Your task to perform on an android device: Search for flights from Buenos aires to Helsinki Image 0: 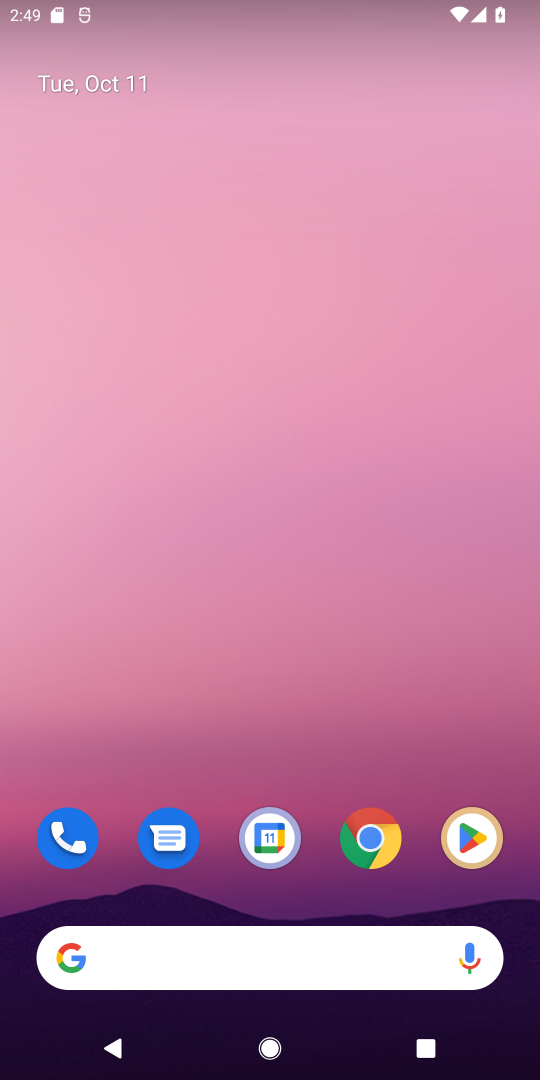
Step 0: click (376, 851)
Your task to perform on an android device: Search for flights from Buenos aires to Helsinki Image 1: 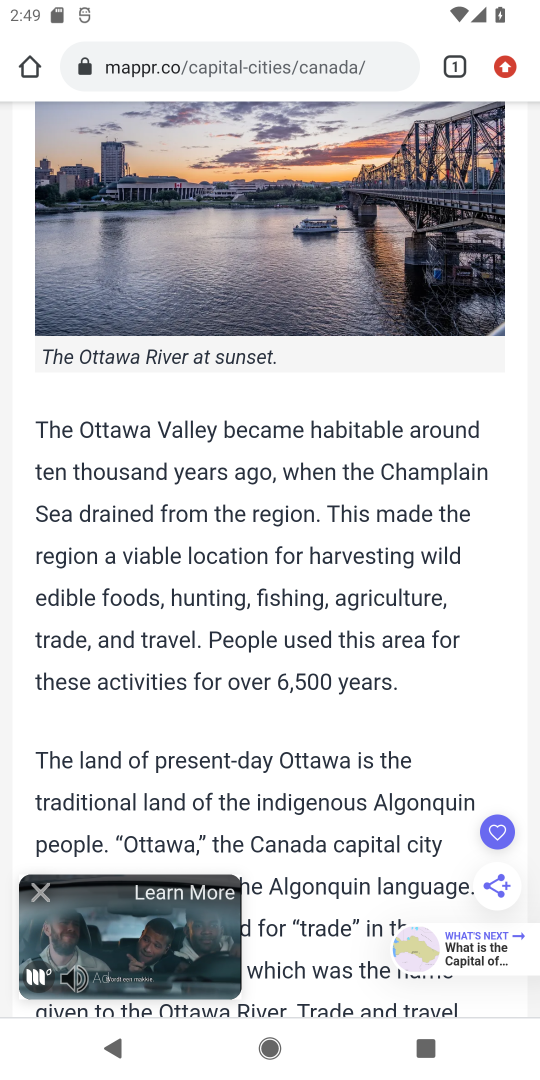
Step 1: click (262, 58)
Your task to perform on an android device: Search for flights from Buenos aires to Helsinki Image 2: 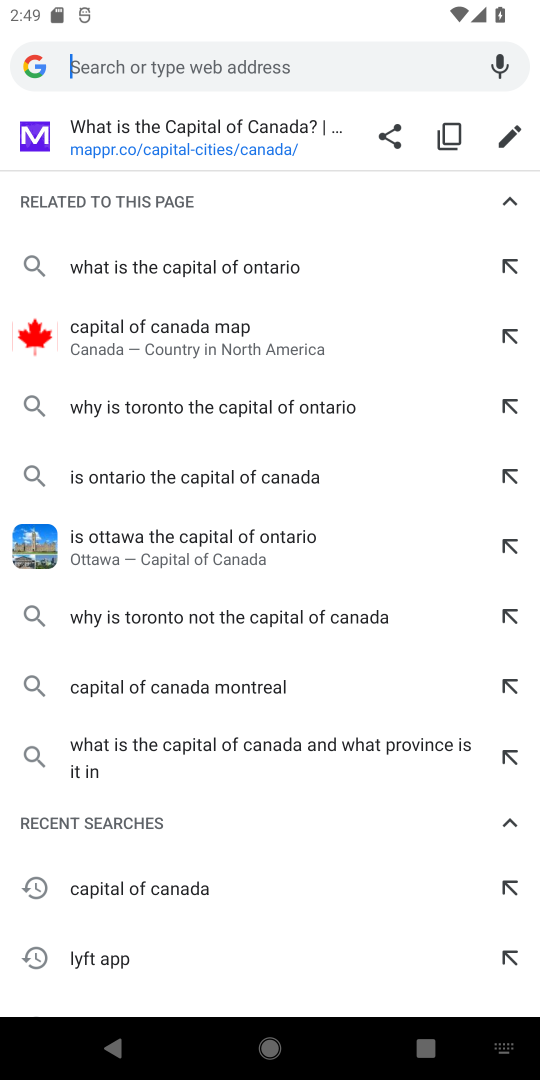
Step 2: type "search flight"
Your task to perform on an android device: Search for flights from Buenos aires to Helsinki Image 3: 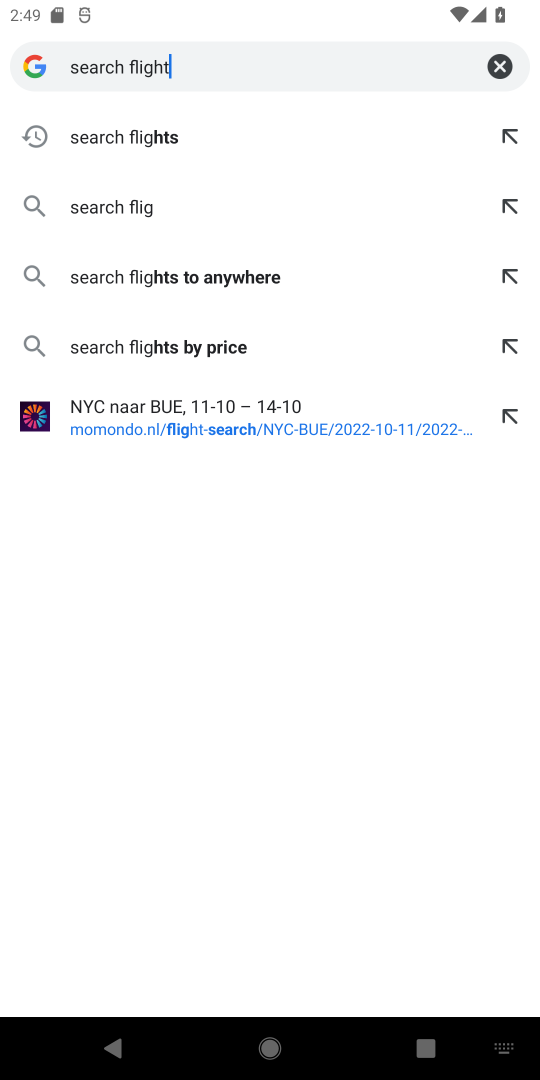
Step 3: type ""
Your task to perform on an android device: Search for flights from Buenos aires to Helsinki Image 4: 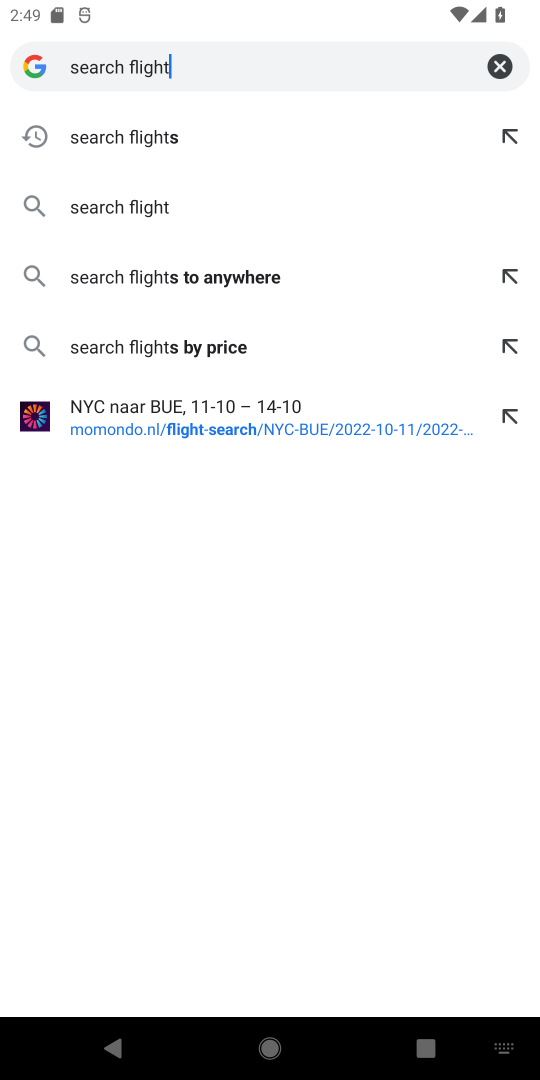
Step 4: click (102, 126)
Your task to perform on an android device: Search for flights from Buenos aires to Helsinki Image 5: 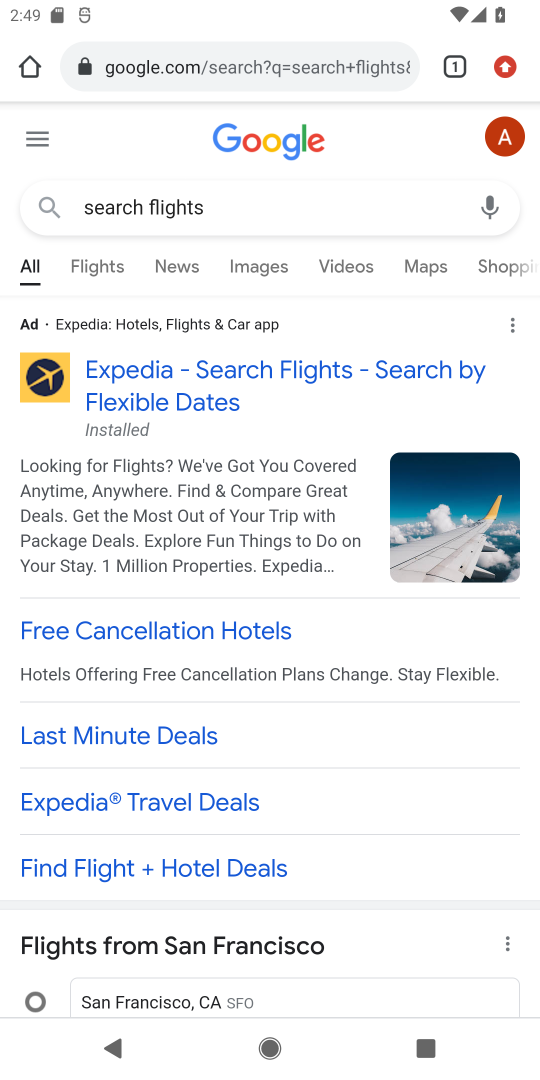
Step 5: drag from (370, 757) to (375, 113)
Your task to perform on an android device: Search for flights from Buenos aires to Helsinki Image 6: 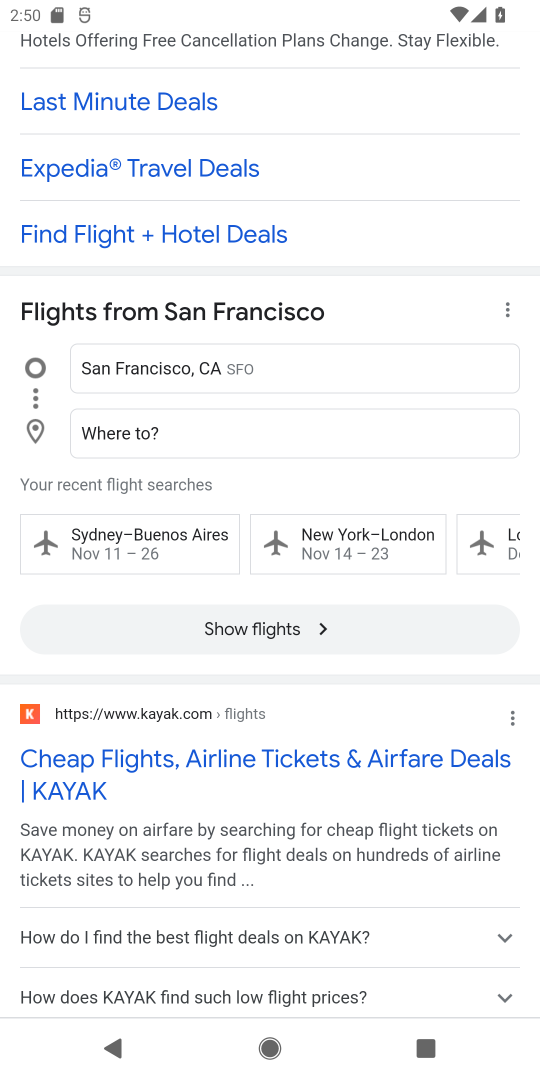
Step 6: click (132, 757)
Your task to perform on an android device: Search for flights from Buenos aires to Helsinki Image 7: 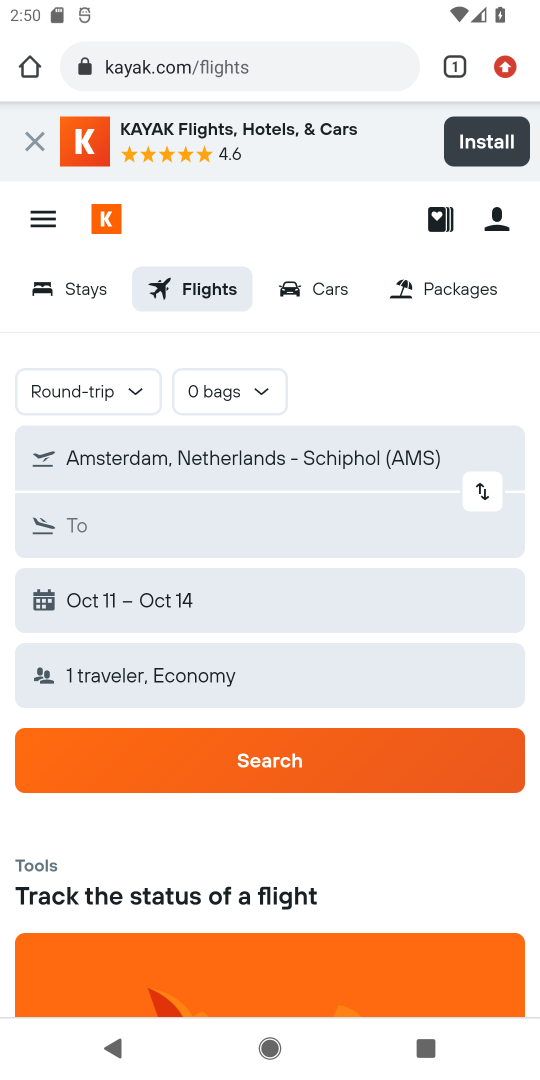
Step 7: click (144, 335)
Your task to perform on an android device: Search for flights from Buenos aires to Helsinki Image 8: 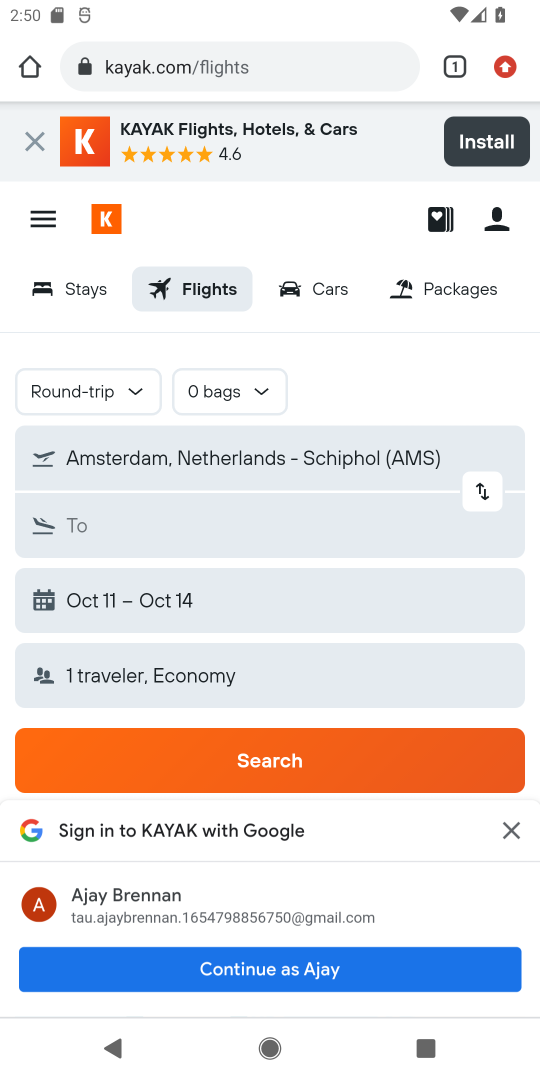
Step 8: click (508, 826)
Your task to perform on an android device: Search for flights from Buenos aires to Helsinki Image 9: 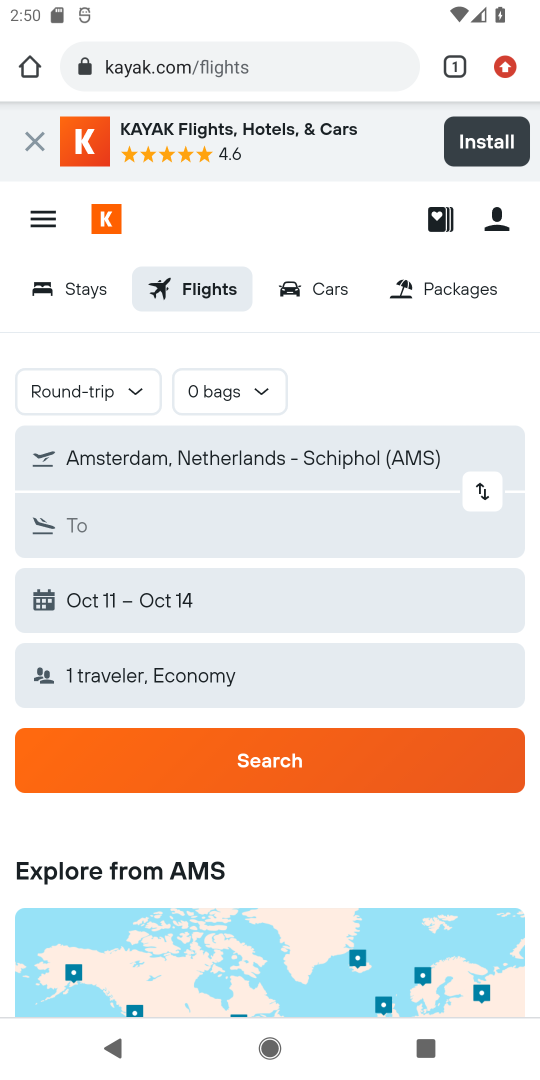
Step 9: click (179, 450)
Your task to perform on an android device: Search for flights from Buenos aires to Helsinki Image 10: 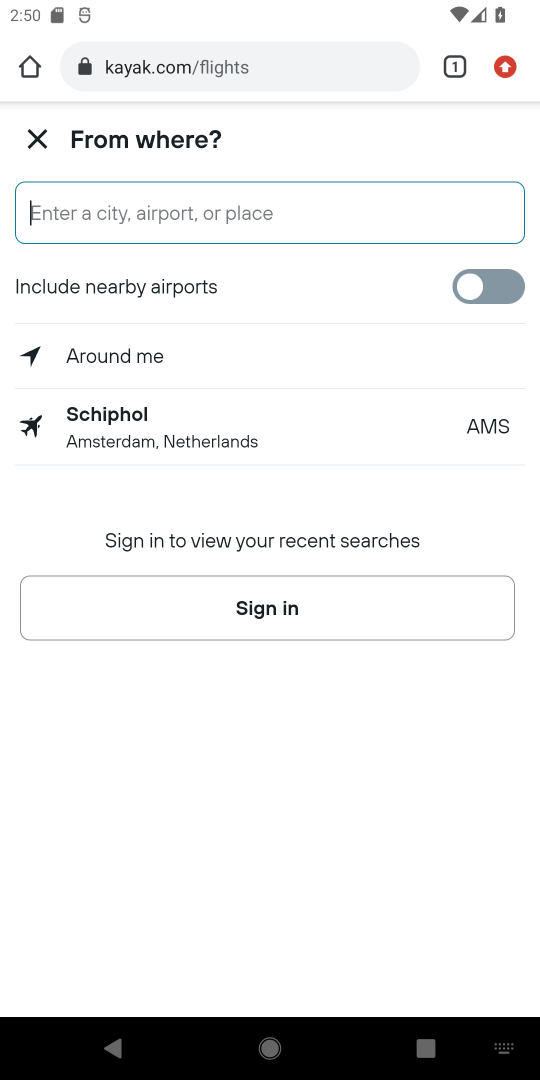
Step 10: type "buenos"
Your task to perform on an android device: Search for flights from Buenos aires to Helsinki Image 11: 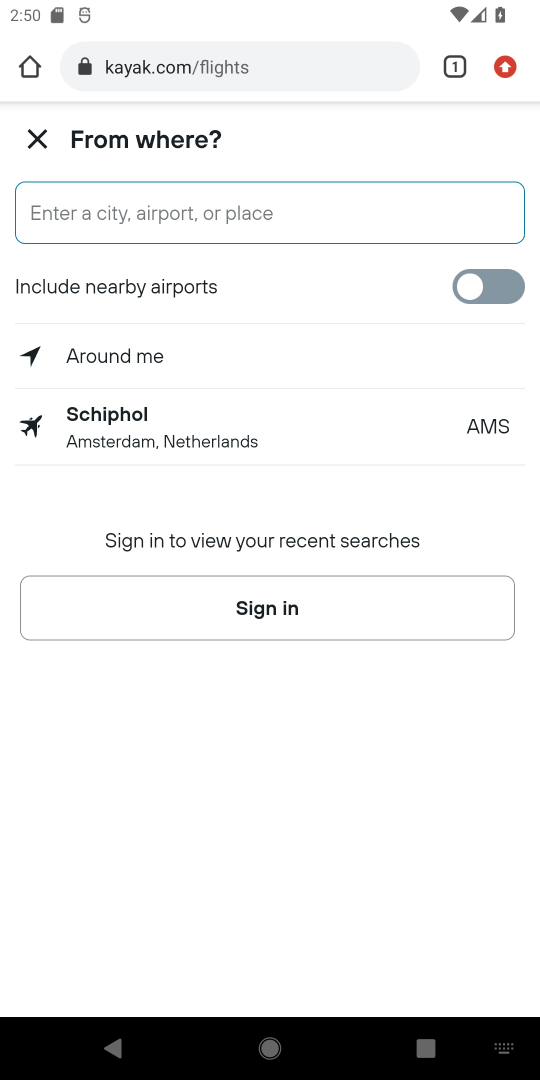
Step 11: type ""
Your task to perform on an android device: Search for flights from Buenos aires to Helsinki Image 12: 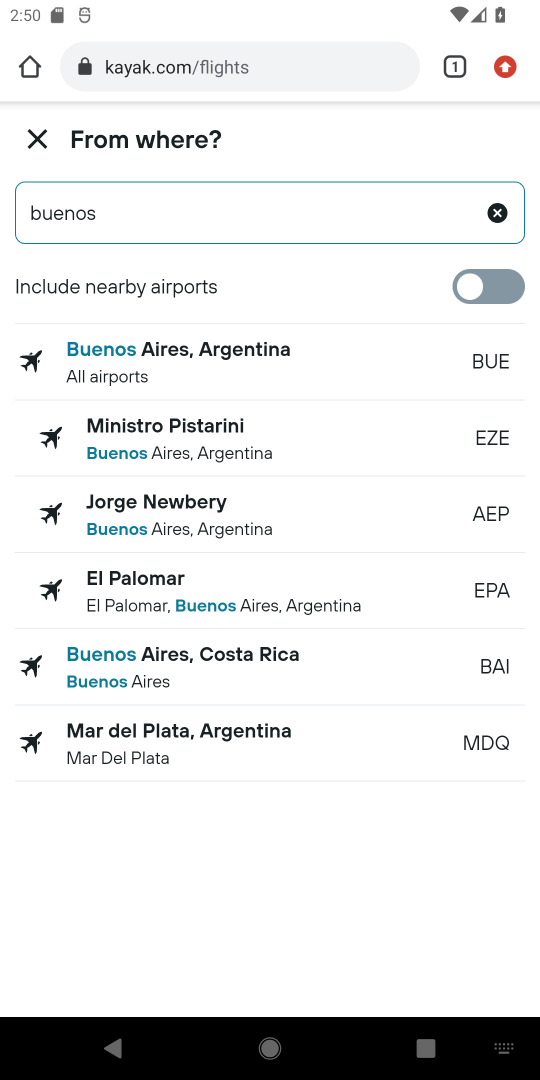
Step 12: click (167, 353)
Your task to perform on an android device: Search for flights from Buenos aires to Helsinki Image 13: 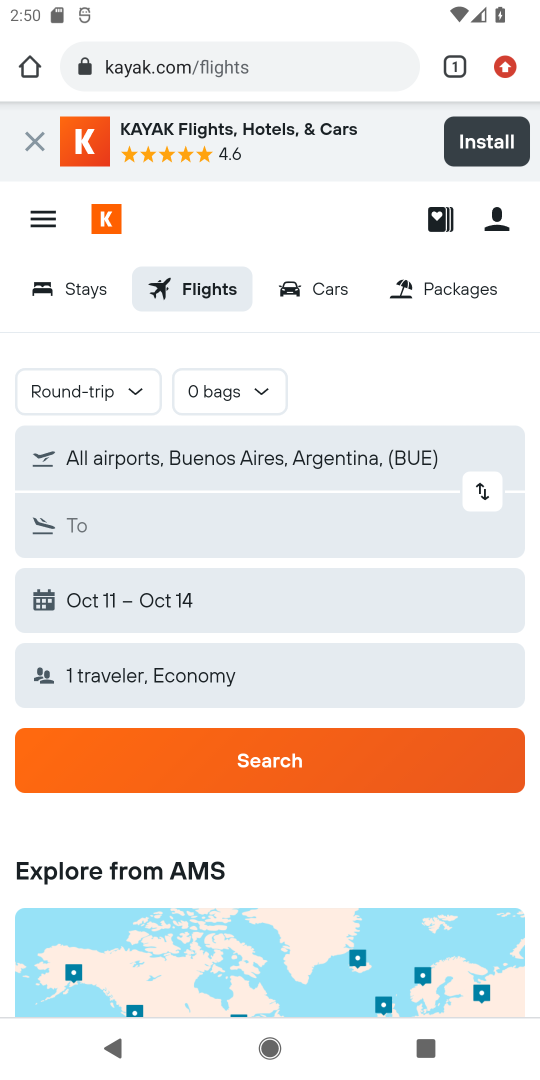
Step 13: click (82, 530)
Your task to perform on an android device: Search for flights from Buenos aires to Helsinki Image 14: 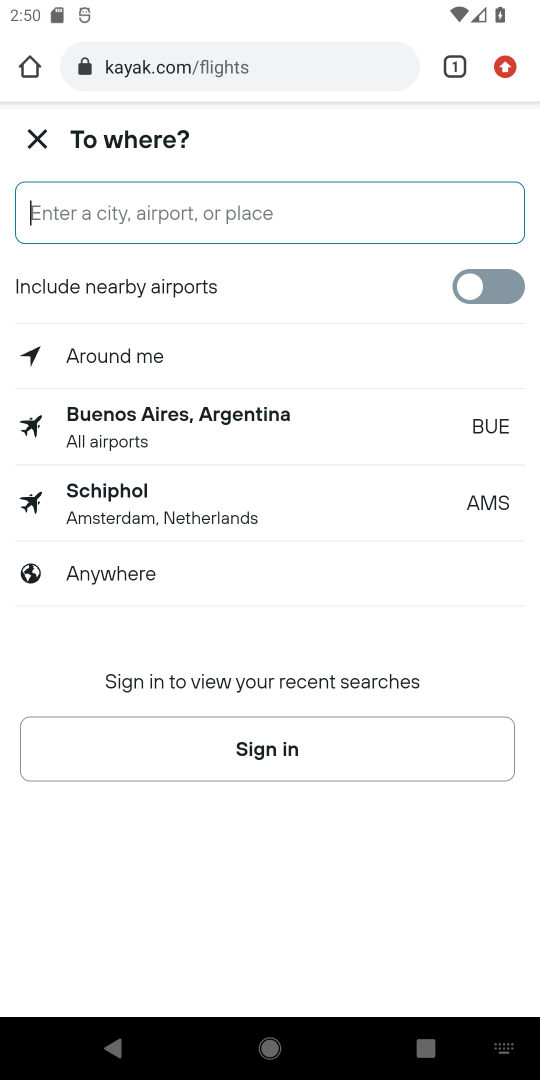
Step 14: type "helsinki"
Your task to perform on an android device: Search for flights from Buenos aires to Helsinki Image 15: 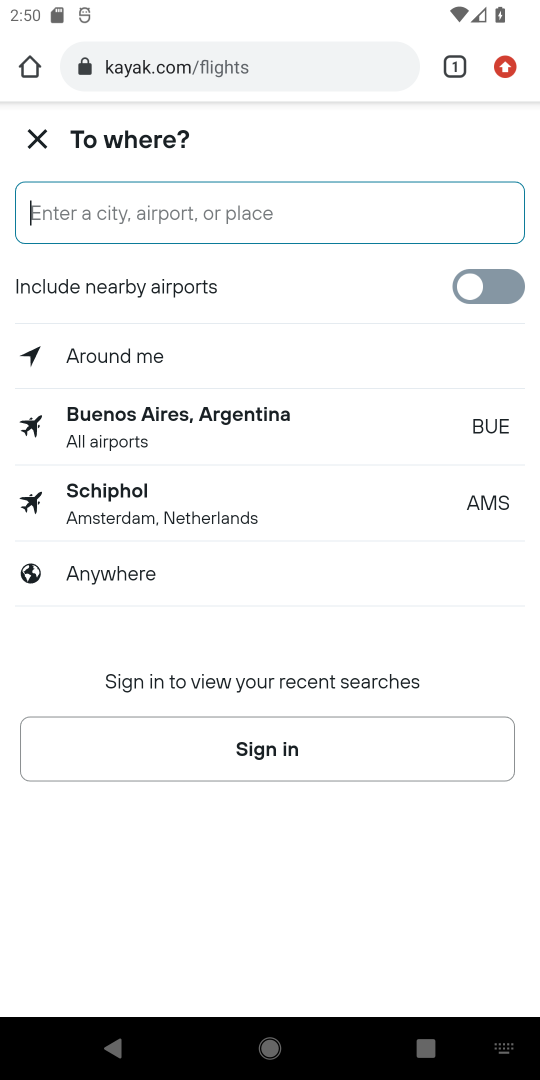
Step 15: type ""
Your task to perform on an android device: Search for flights from Buenos aires to Helsinki Image 16: 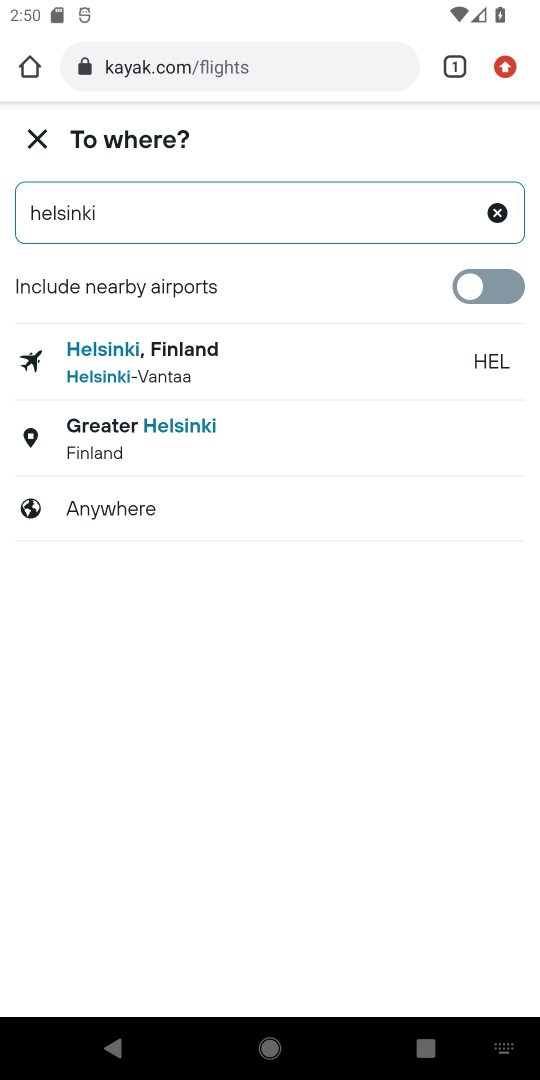
Step 16: click (221, 382)
Your task to perform on an android device: Search for flights from Buenos aires to Helsinki Image 17: 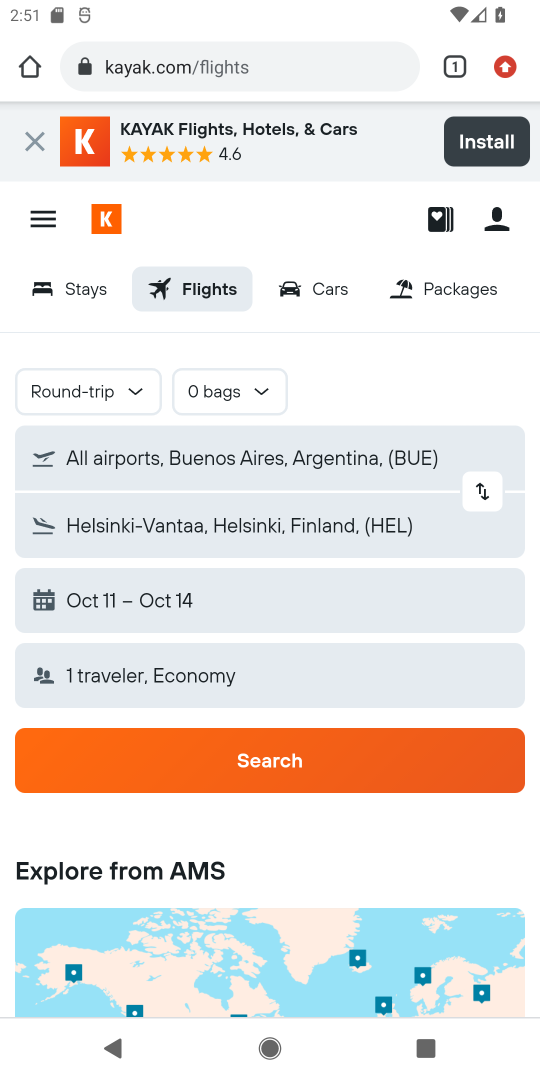
Step 17: click (198, 595)
Your task to perform on an android device: Search for flights from Buenos aires to Helsinki Image 18: 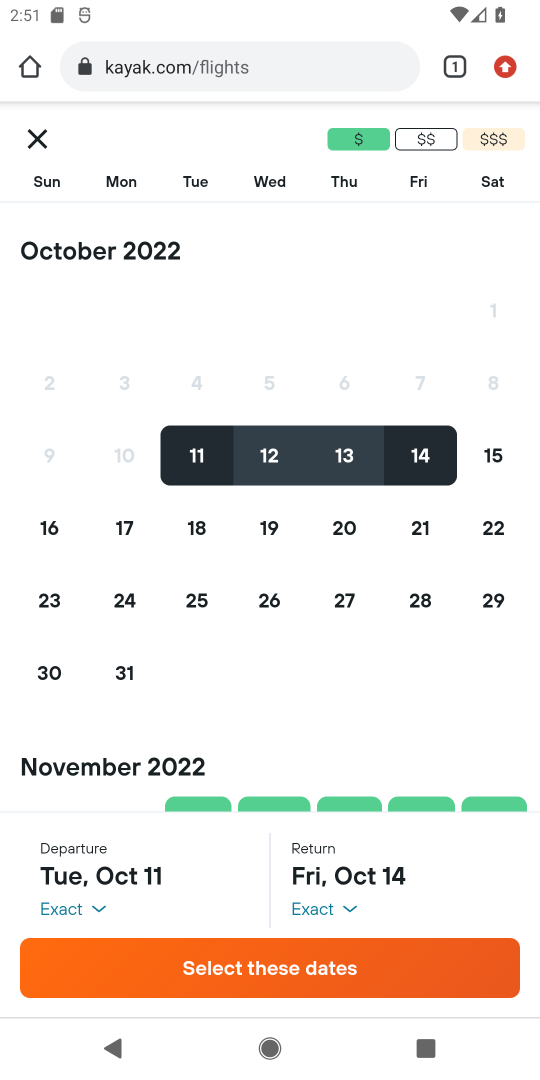
Step 18: click (267, 468)
Your task to perform on an android device: Search for flights from Buenos aires to Helsinki Image 19: 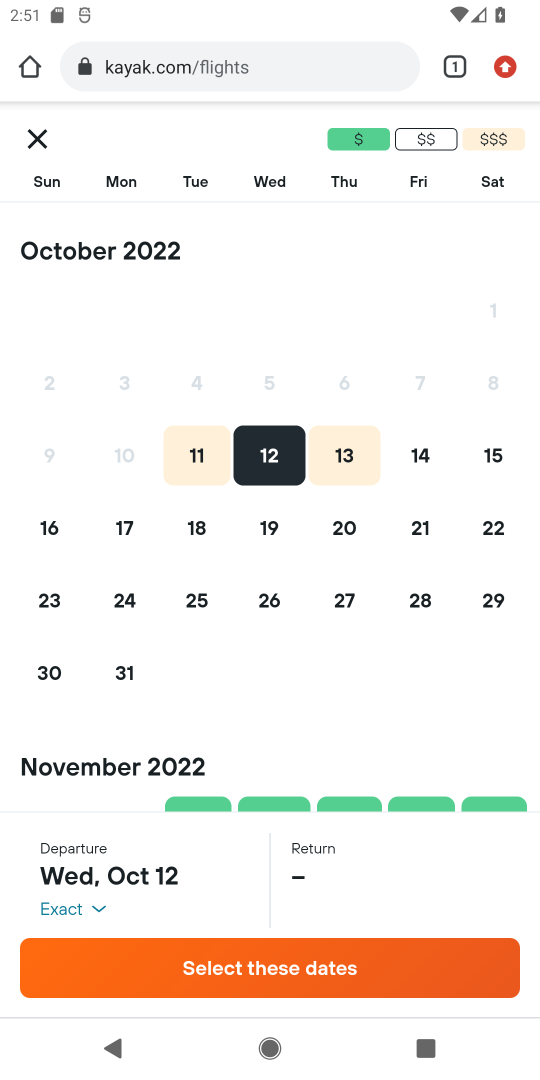
Step 19: click (245, 465)
Your task to perform on an android device: Search for flights from Buenos aires to Helsinki Image 20: 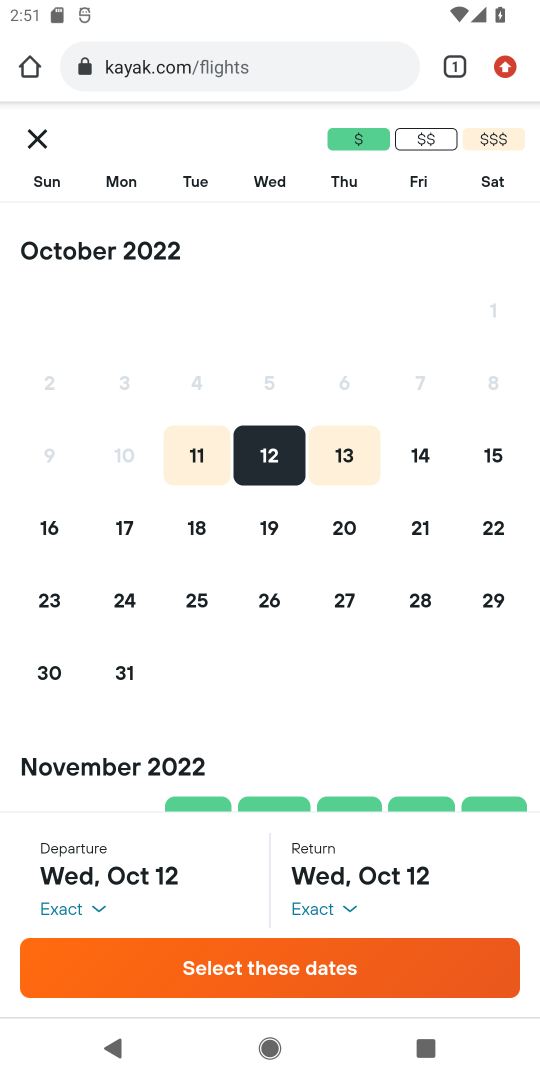
Step 20: click (357, 881)
Your task to perform on an android device: Search for flights from Buenos aires to Helsinki Image 21: 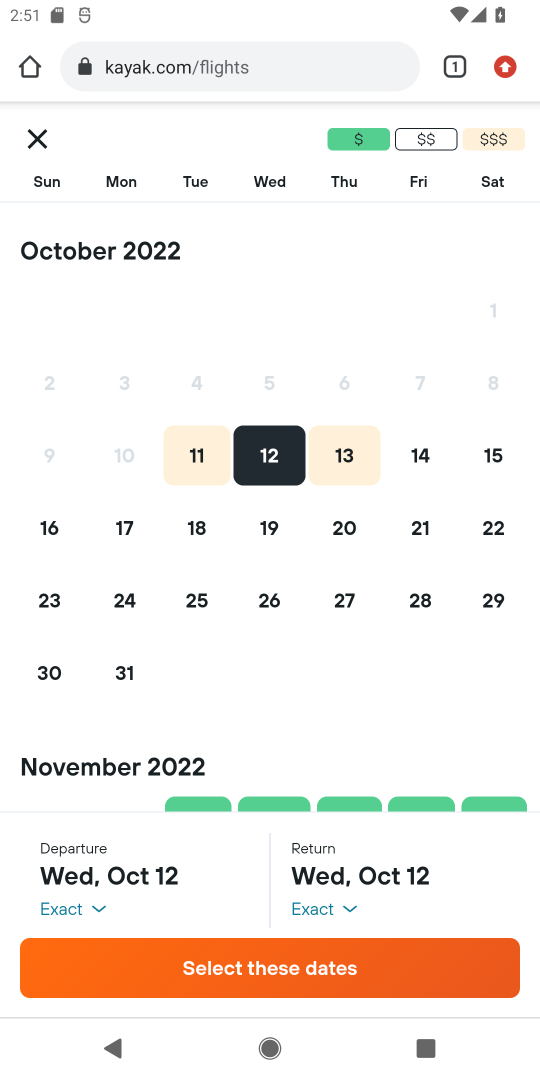
Step 21: click (426, 451)
Your task to perform on an android device: Search for flights from Buenos aires to Helsinki Image 22: 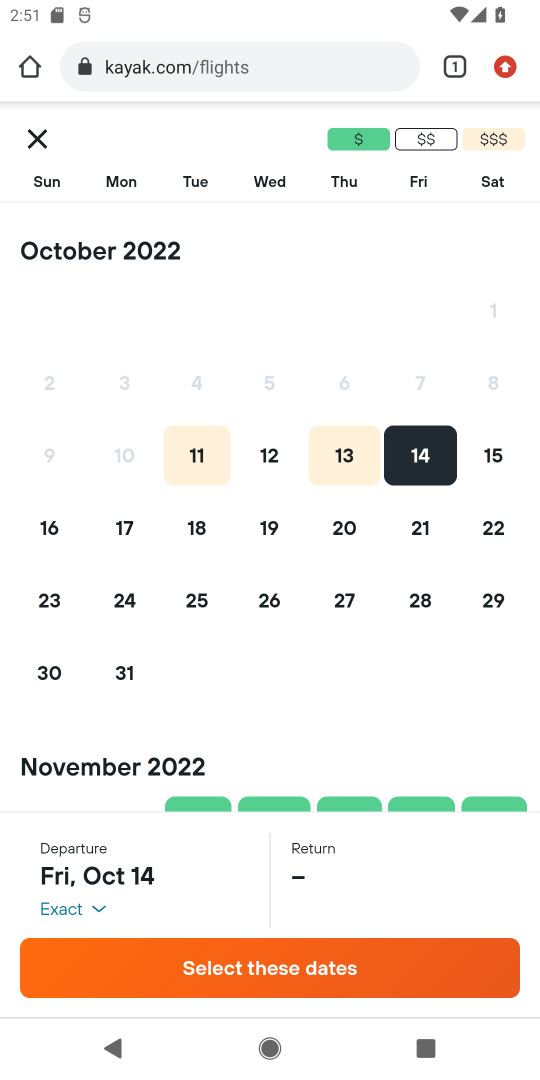
Step 22: click (275, 982)
Your task to perform on an android device: Search for flights from Buenos aires to Helsinki Image 23: 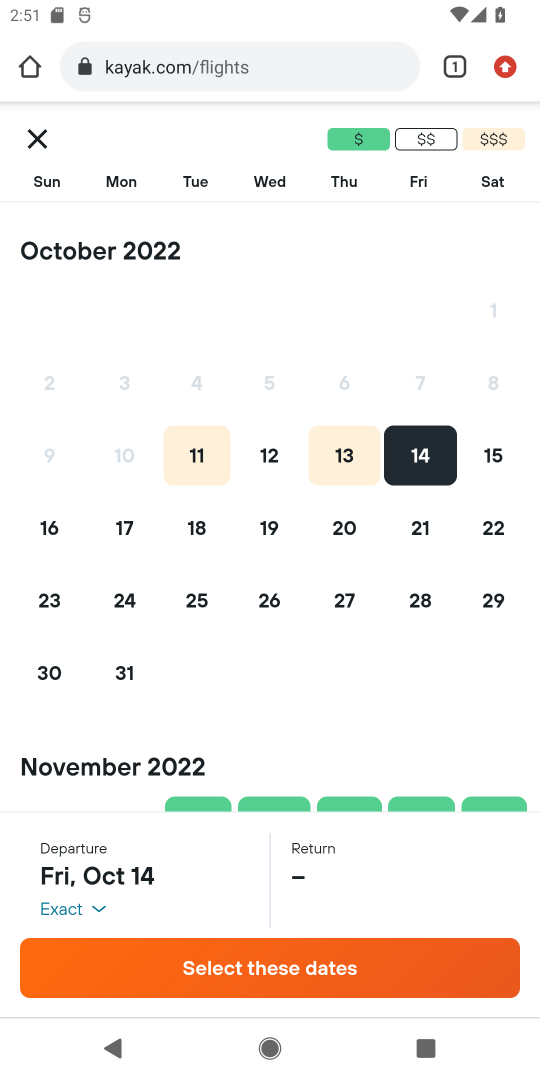
Step 23: drag from (307, 598) to (366, 303)
Your task to perform on an android device: Search for flights from Buenos aires to Helsinki Image 24: 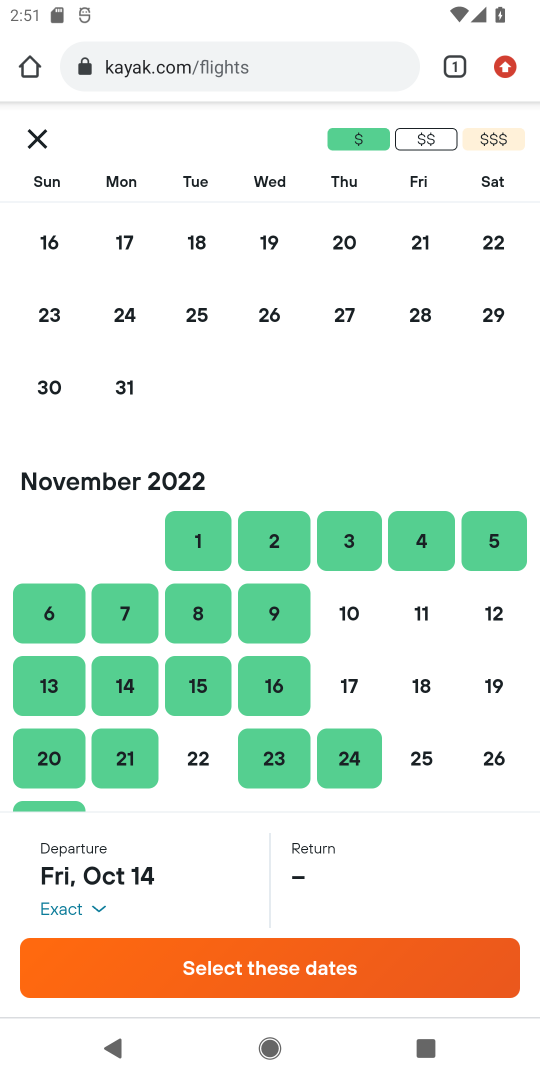
Step 24: drag from (59, 526) to (251, 521)
Your task to perform on an android device: Search for flights from Buenos aires to Helsinki Image 25: 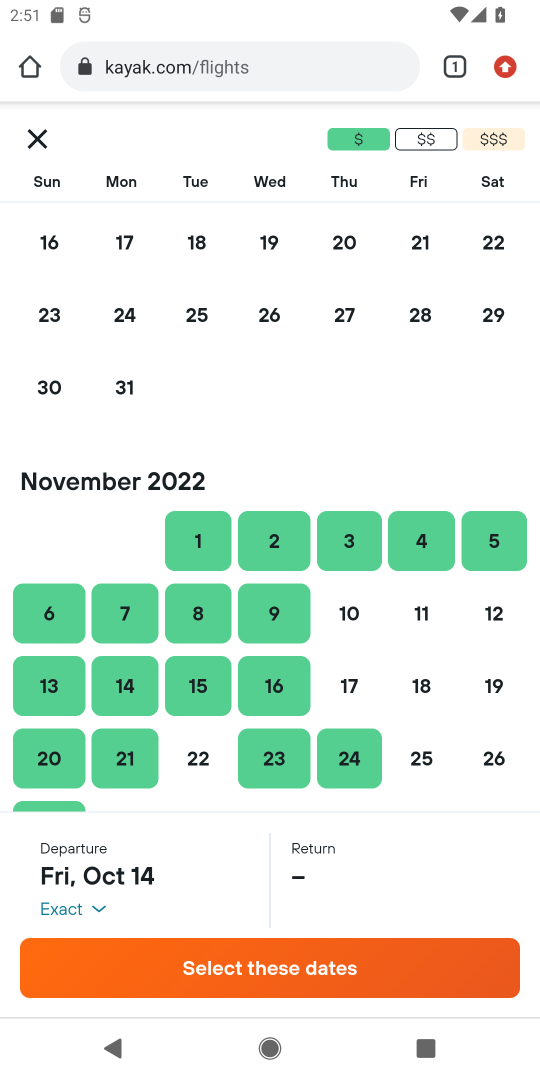
Step 25: click (198, 537)
Your task to perform on an android device: Search for flights from Buenos aires to Helsinki Image 26: 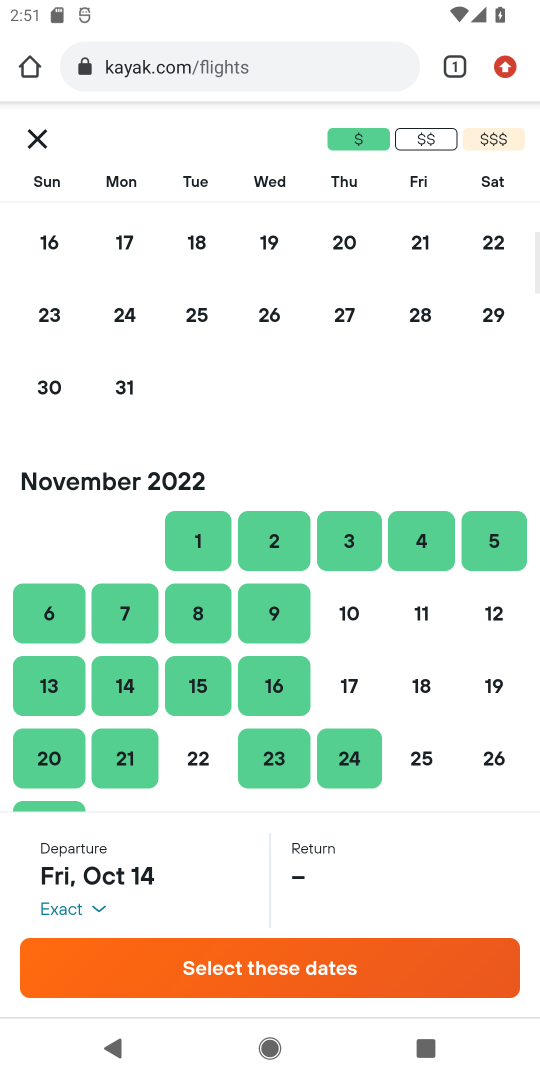
Step 26: click (343, 627)
Your task to perform on an android device: Search for flights from Buenos aires to Helsinki Image 27: 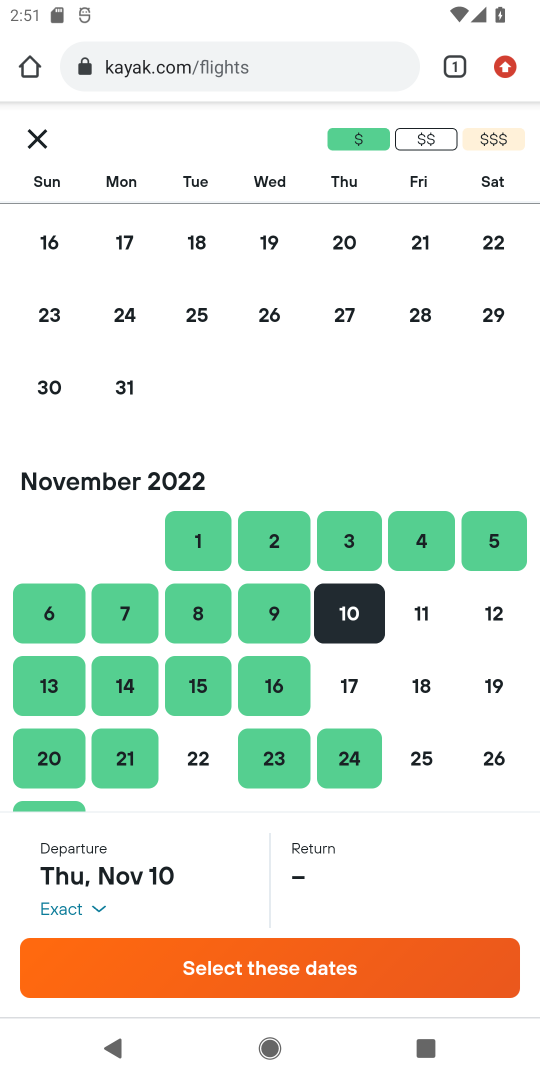
Step 27: click (348, 610)
Your task to perform on an android device: Search for flights from Buenos aires to Helsinki Image 28: 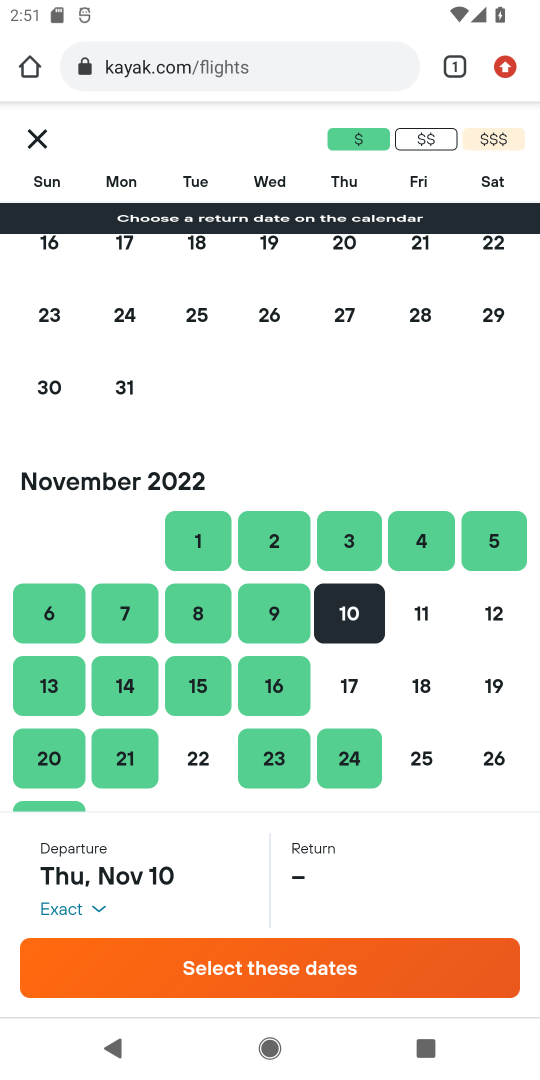
Step 28: click (334, 980)
Your task to perform on an android device: Search for flights from Buenos aires to Helsinki Image 29: 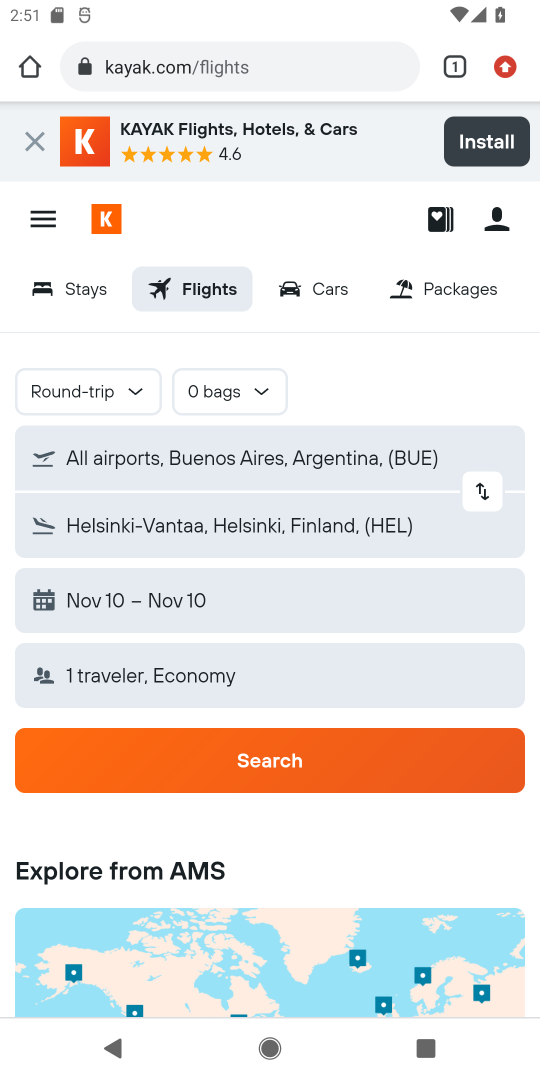
Step 29: click (246, 779)
Your task to perform on an android device: Search for flights from Buenos aires to Helsinki Image 30: 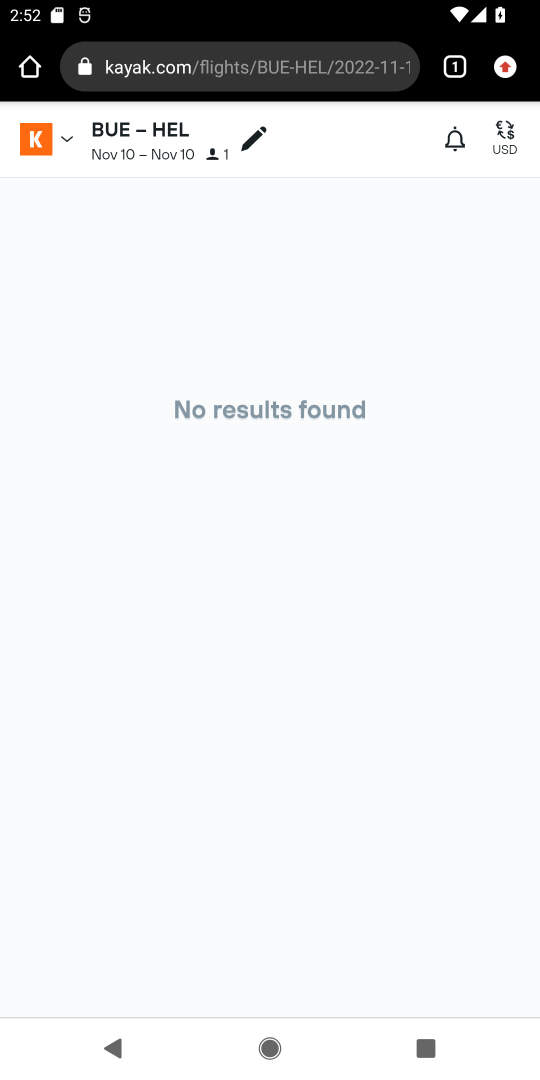
Step 30: press back button
Your task to perform on an android device: Search for flights from Buenos aires to Helsinki Image 31: 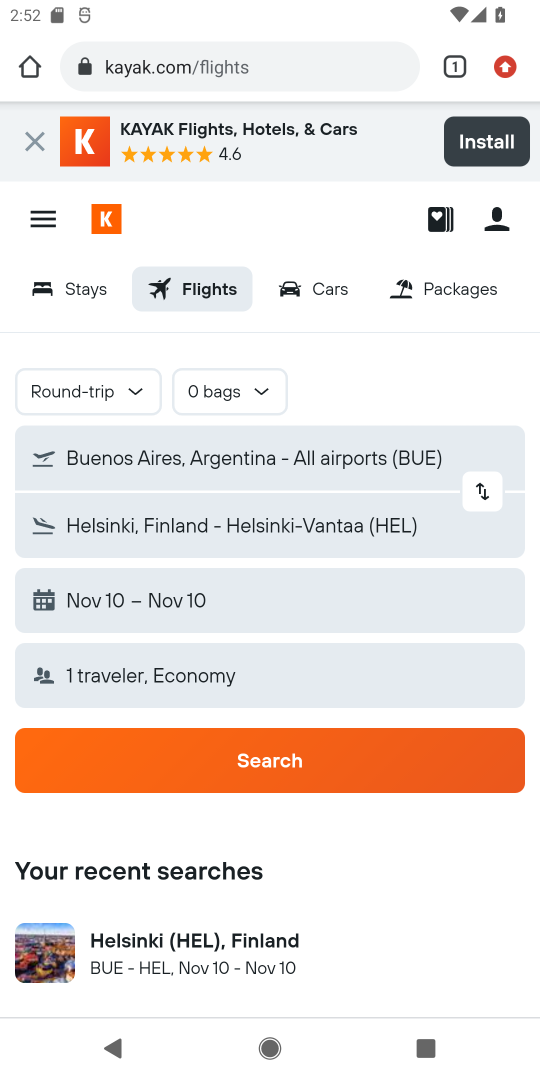
Step 31: click (177, 596)
Your task to perform on an android device: Search for flights from Buenos aires to Helsinki Image 32: 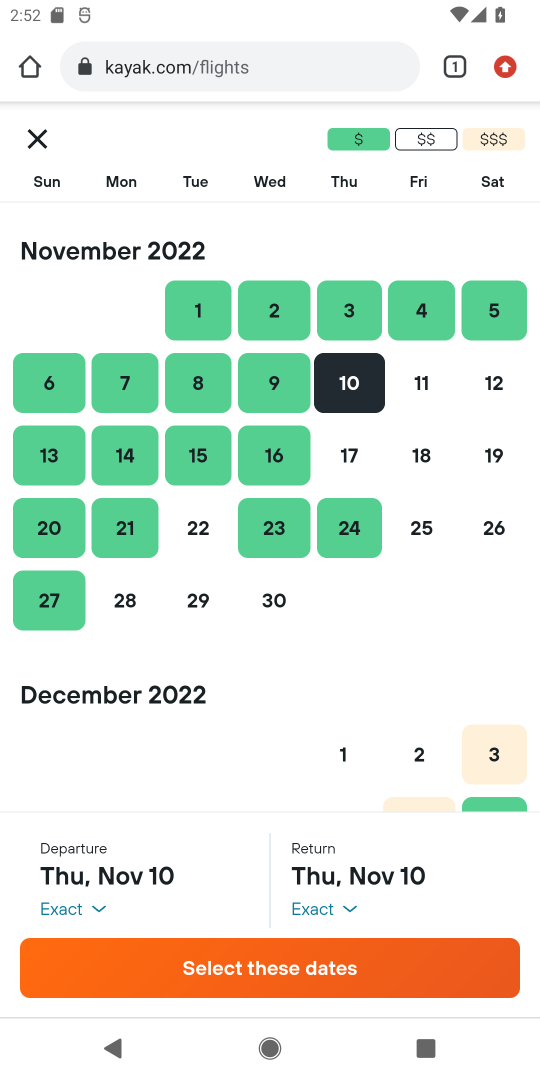
Step 32: click (419, 392)
Your task to perform on an android device: Search for flights from Buenos aires to Helsinki Image 33: 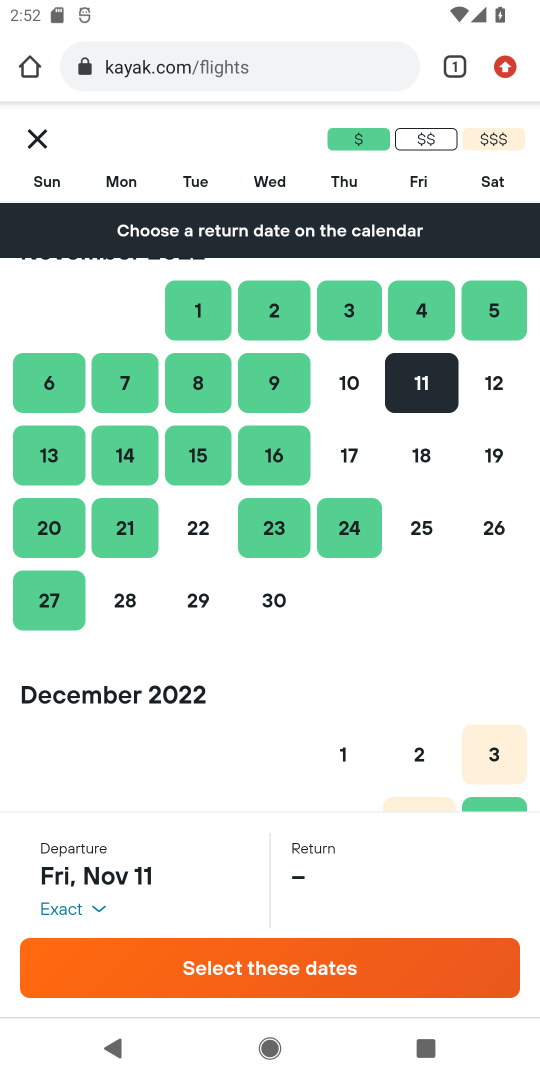
Step 33: click (321, 843)
Your task to perform on an android device: Search for flights from Buenos aires to Helsinki Image 34: 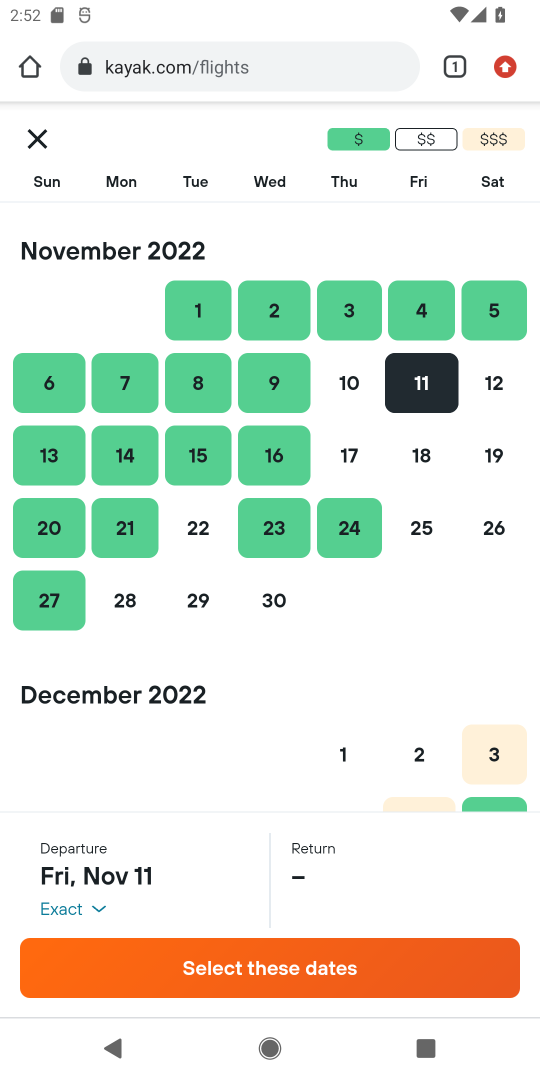
Step 34: click (303, 872)
Your task to perform on an android device: Search for flights from Buenos aires to Helsinki Image 35: 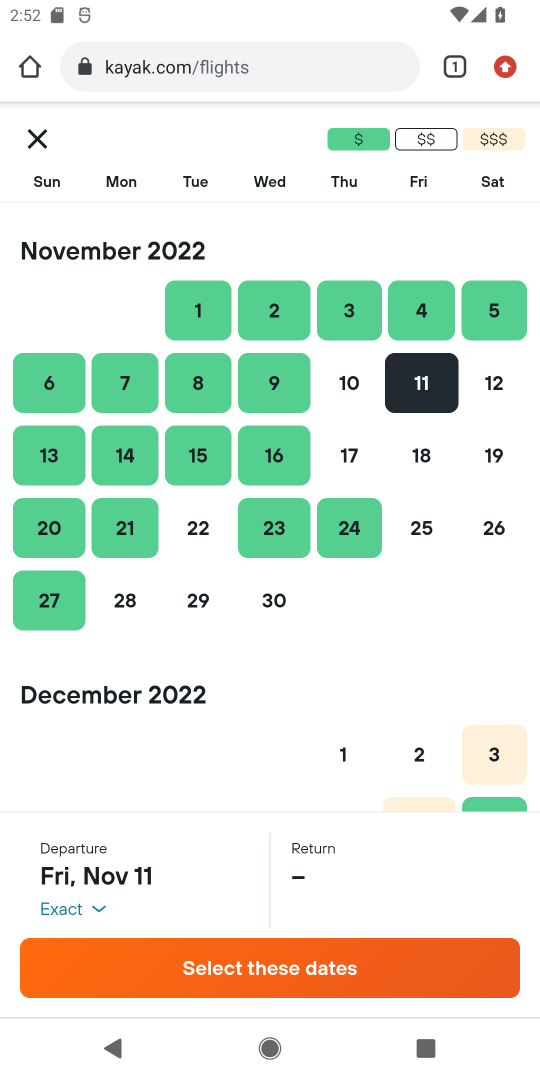
Step 35: click (301, 872)
Your task to perform on an android device: Search for flights from Buenos aires to Helsinki Image 36: 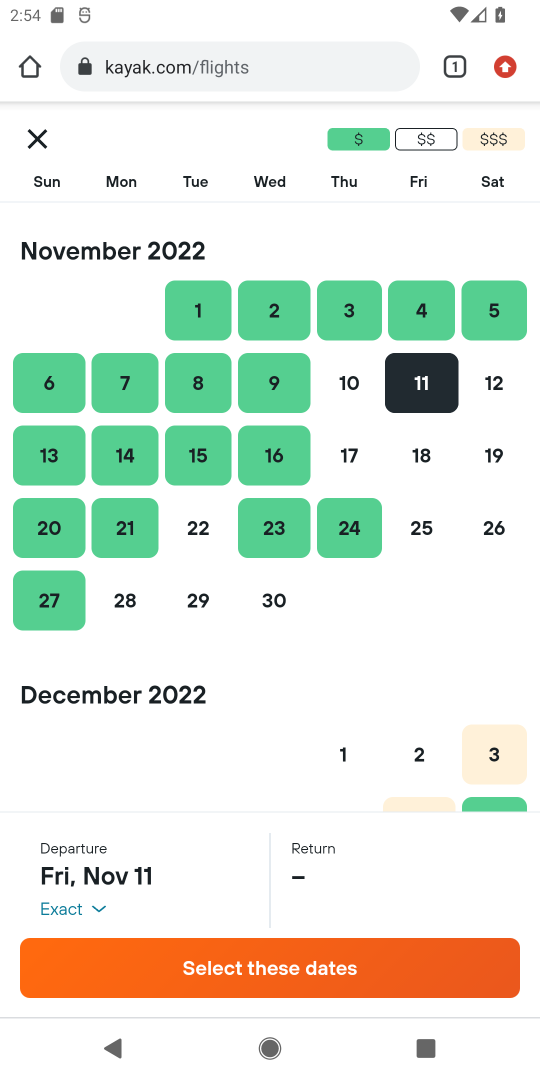
Step 36: click (295, 884)
Your task to perform on an android device: Search for flights from Buenos aires to Helsinki Image 37: 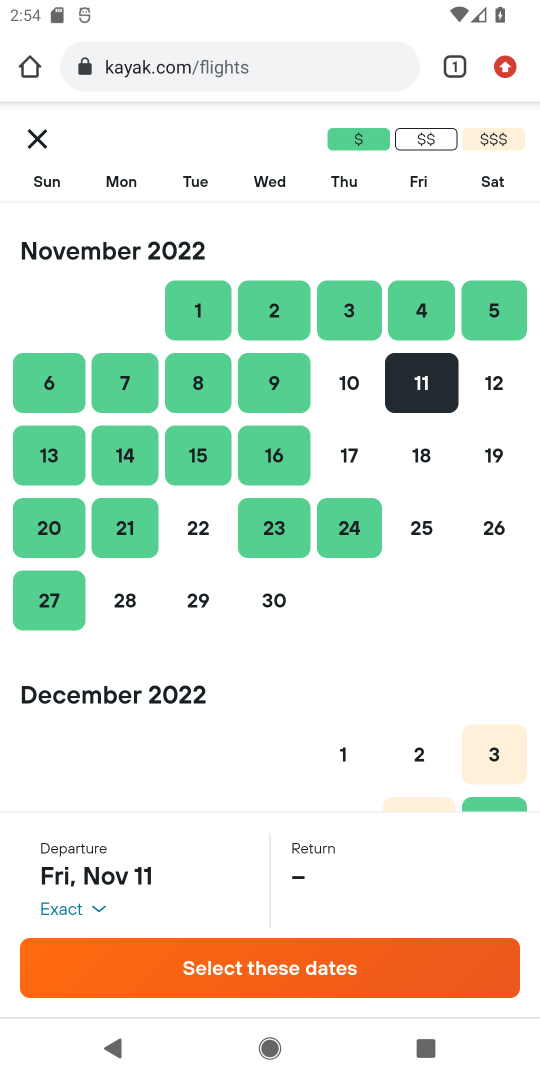
Step 37: click (311, 843)
Your task to perform on an android device: Search for flights from Buenos aires to Helsinki Image 38: 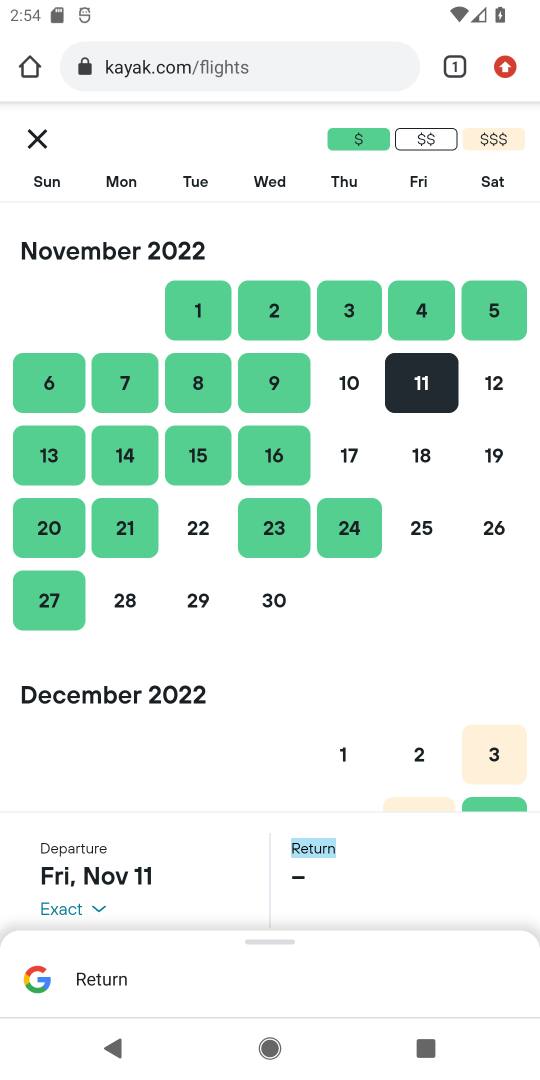
Step 38: click (421, 452)
Your task to perform on an android device: Search for flights from Buenos aires to Helsinki Image 39: 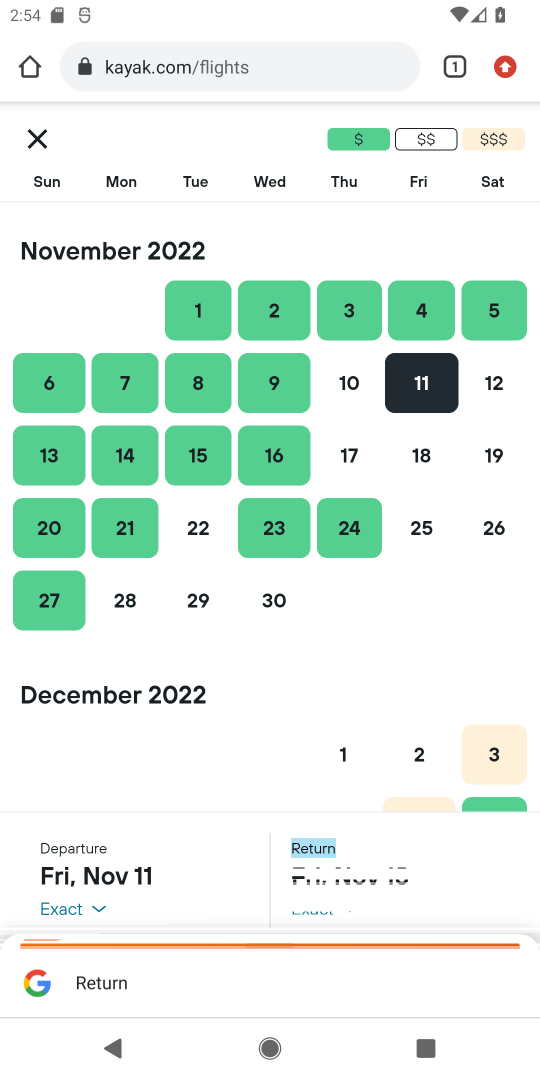
Step 39: click (344, 762)
Your task to perform on an android device: Search for flights from Buenos aires to Helsinki Image 40: 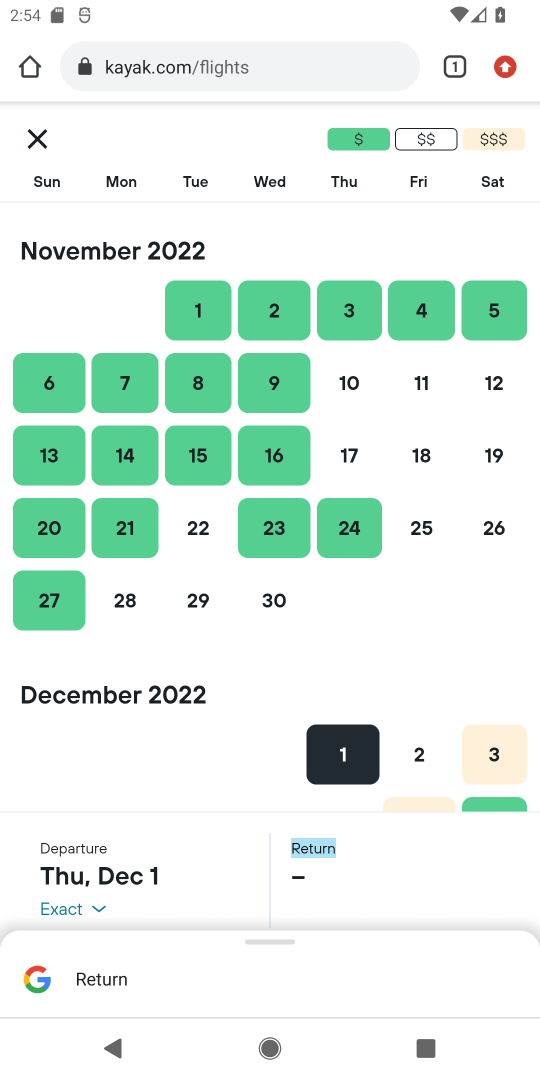
Step 40: click (483, 459)
Your task to perform on an android device: Search for flights from Buenos aires to Helsinki Image 41: 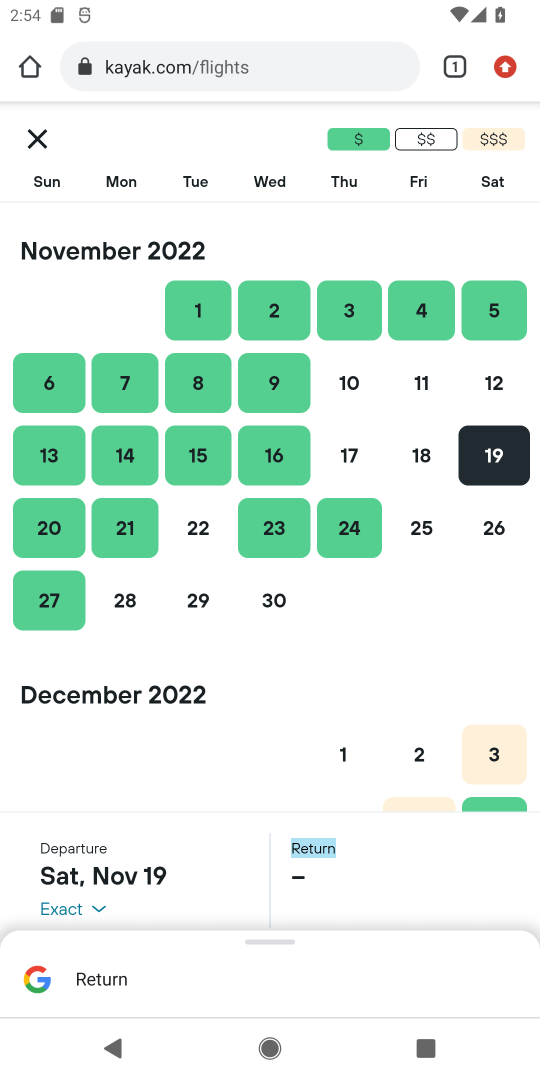
Step 41: drag from (169, 786) to (207, 503)
Your task to perform on an android device: Search for flights from Buenos aires to Helsinki Image 42: 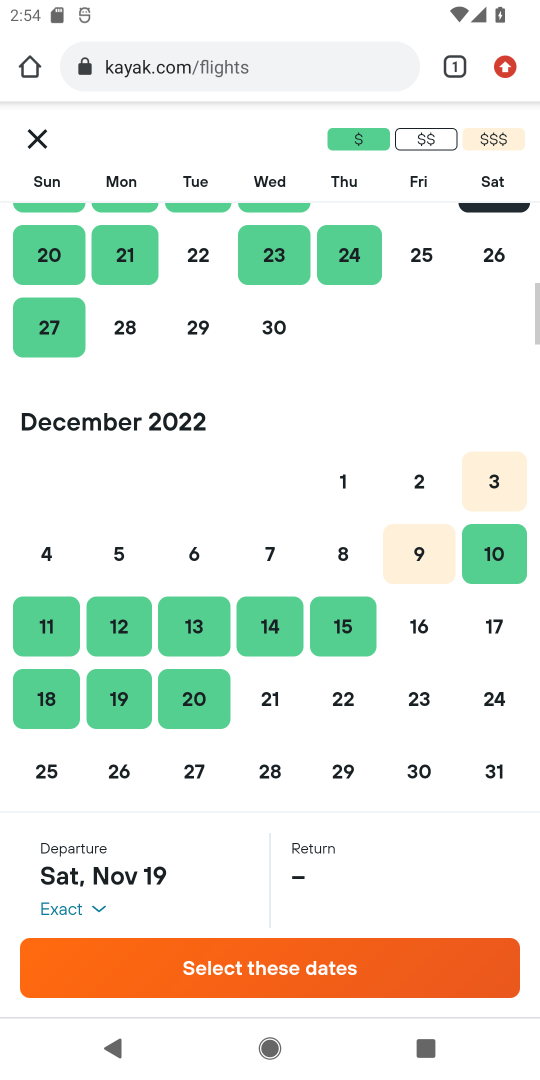
Step 42: click (349, 887)
Your task to perform on an android device: Search for flights from Buenos aires to Helsinki Image 43: 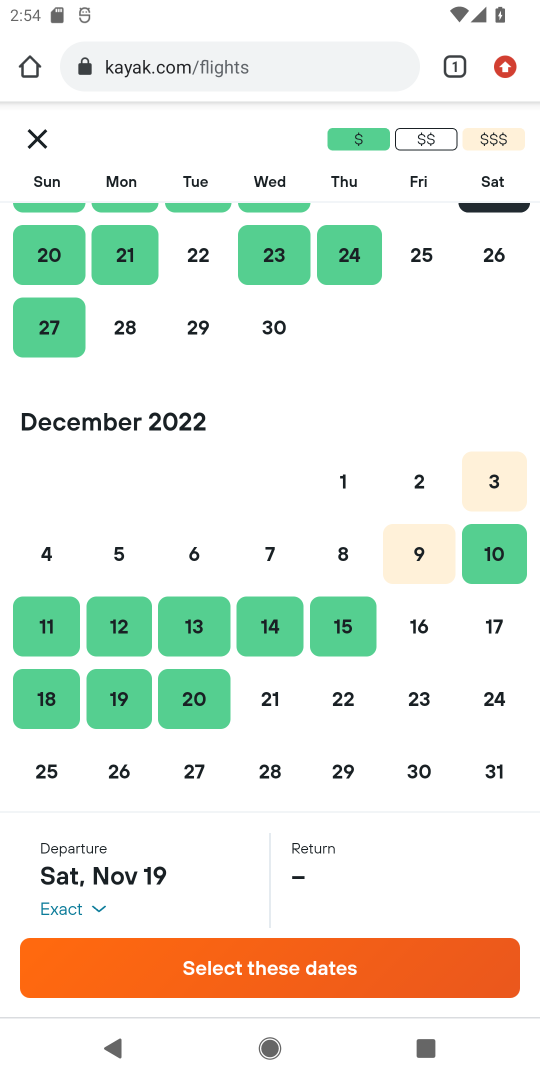
Step 43: click (345, 474)
Your task to perform on an android device: Search for flights from Buenos aires to Helsinki Image 44: 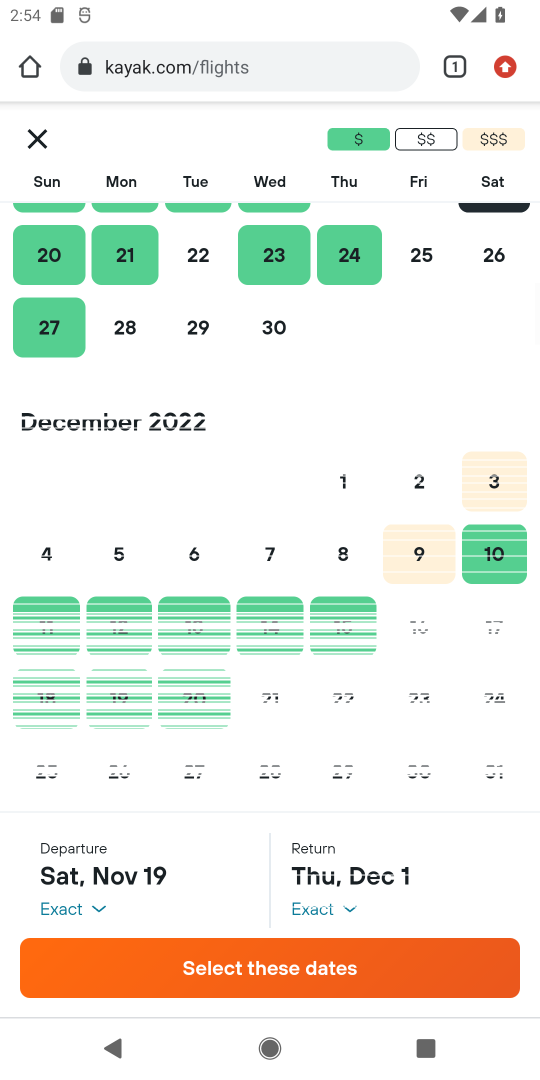
Step 44: click (345, 473)
Your task to perform on an android device: Search for flights from Buenos aires to Helsinki Image 45: 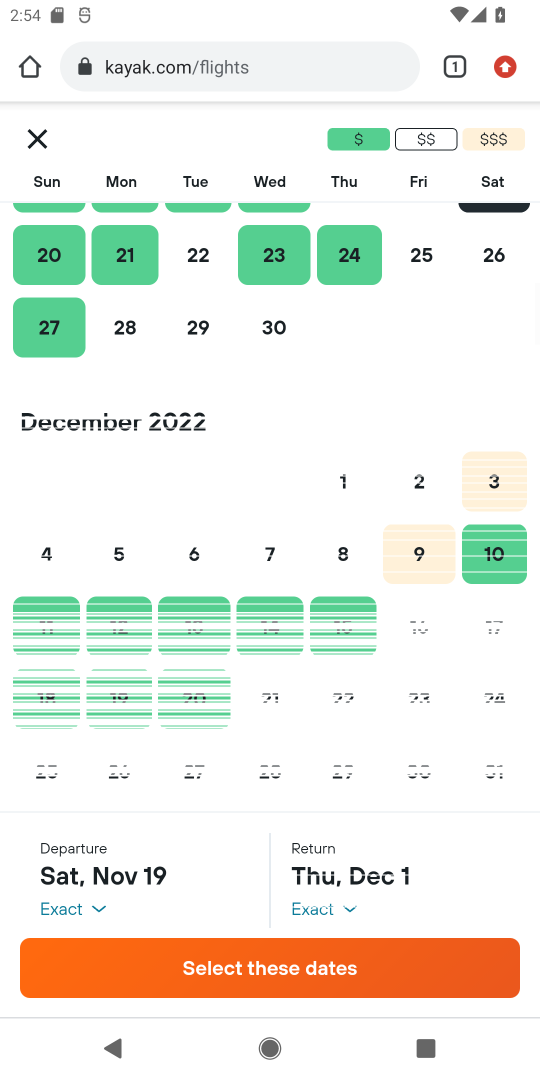
Step 45: click (345, 473)
Your task to perform on an android device: Search for flights from Buenos aires to Helsinki Image 46: 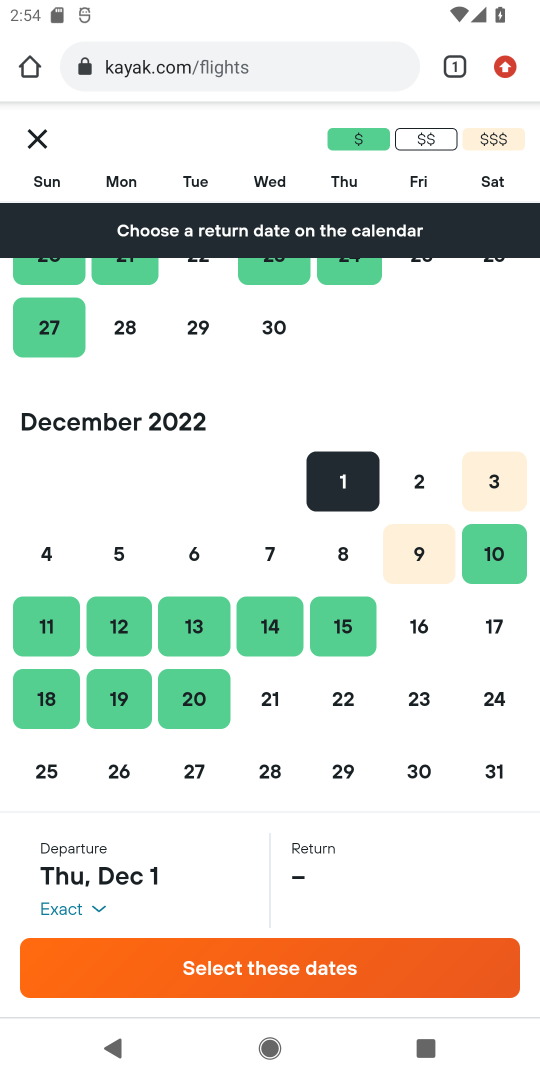
Step 46: click (295, 963)
Your task to perform on an android device: Search for flights from Buenos aires to Helsinki Image 47: 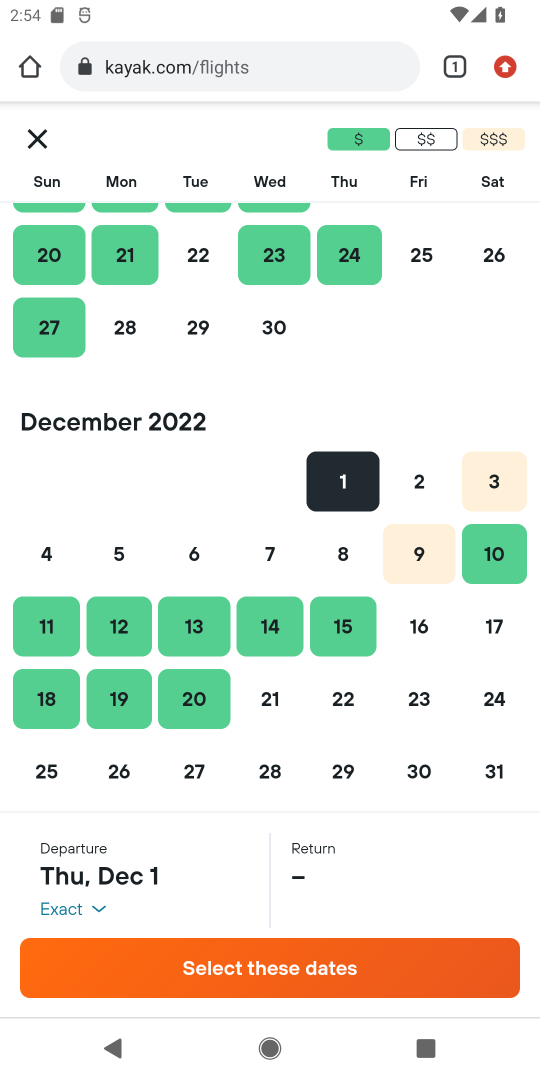
Step 47: click (222, 959)
Your task to perform on an android device: Search for flights from Buenos aires to Helsinki Image 48: 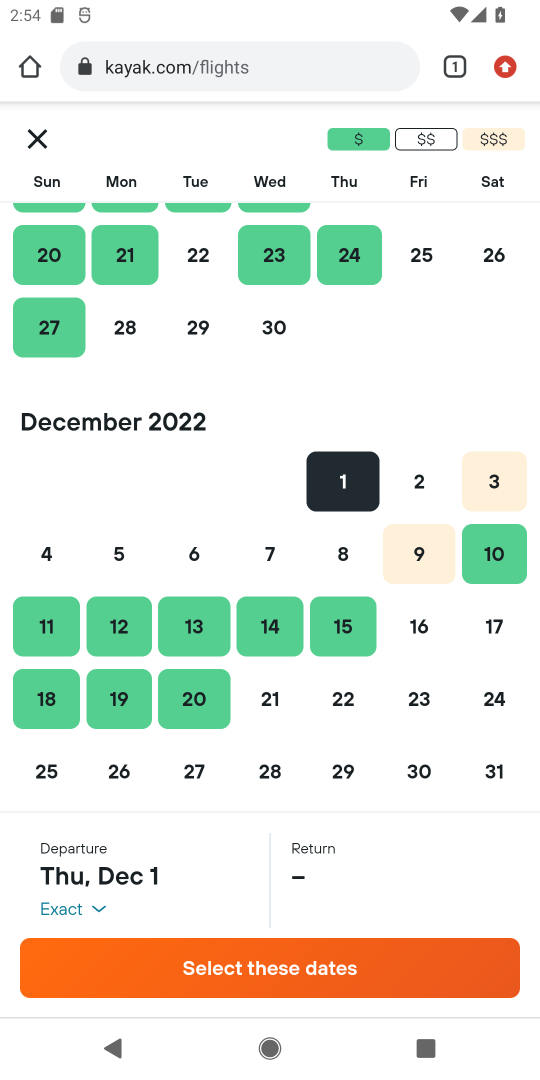
Step 48: click (299, 874)
Your task to perform on an android device: Search for flights from Buenos aires to Helsinki Image 49: 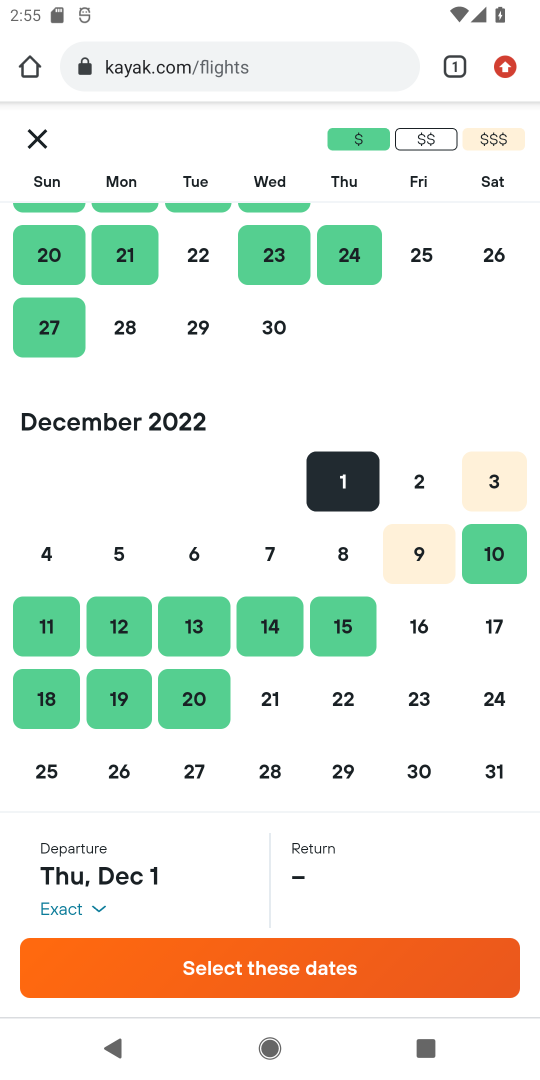
Step 49: click (407, 560)
Your task to perform on an android device: Search for flights from Buenos aires to Helsinki Image 50: 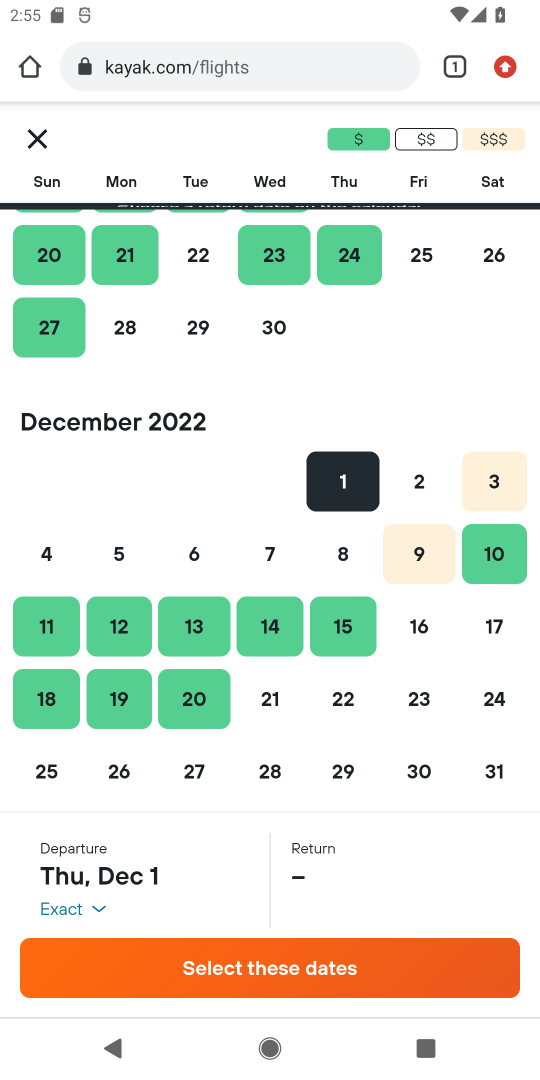
Step 50: click (316, 964)
Your task to perform on an android device: Search for flights from Buenos aires to Helsinki Image 51: 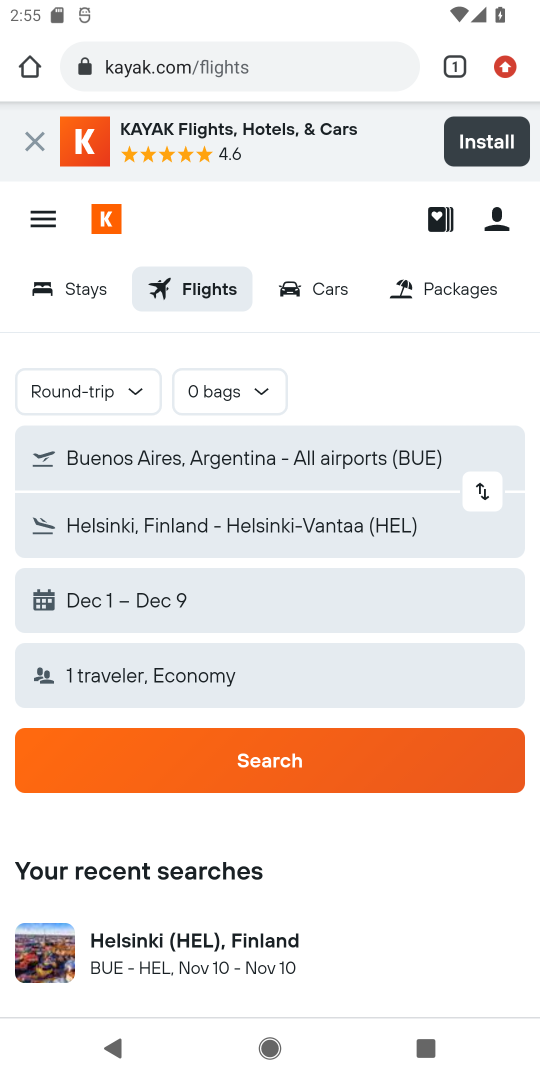
Step 51: click (264, 745)
Your task to perform on an android device: Search for flights from Buenos aires to Helsinki Image 52: 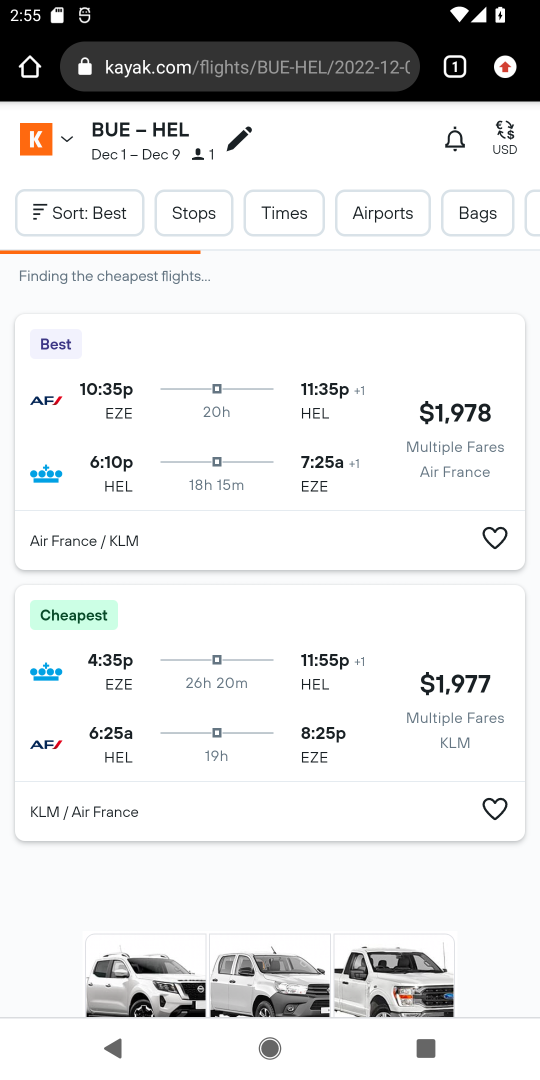
Step 52: task complete